Your task to perform on an android device: Go to internet settings Image 0: 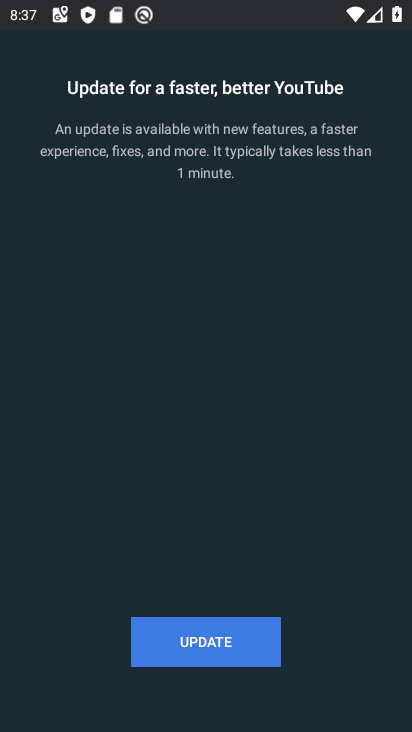
Step 0: press home button
Your task to perform on an android device: Go to internet settings Image 1: 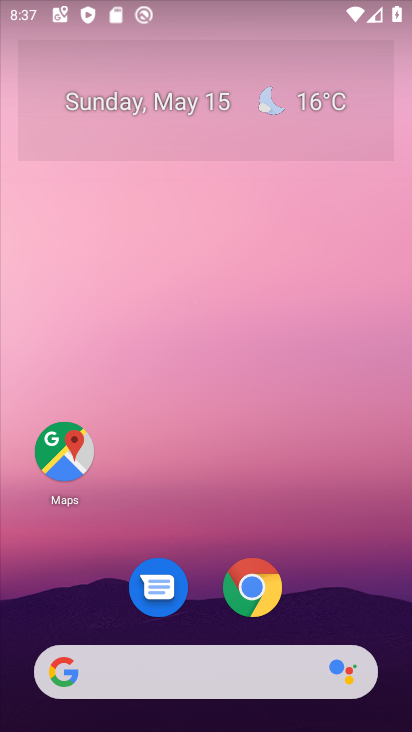
Step 1: drag from (328, 523) to (352, 47)
Your task to perform on an android device: Go to internet settings Image 2: 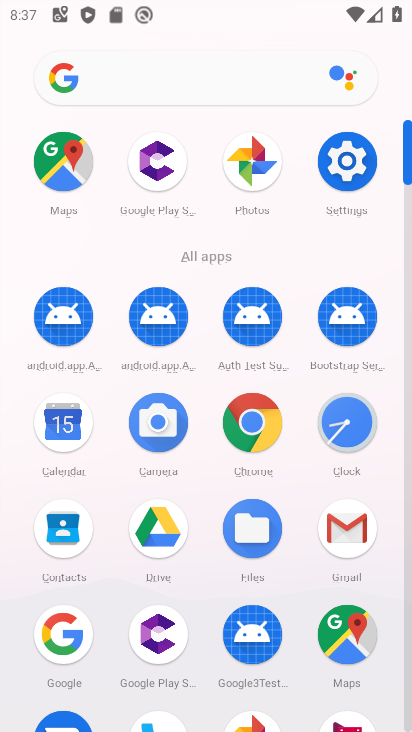
Step 2: click (357, 141)
Your task to perform on an android device: Go to internet settings Image 3: 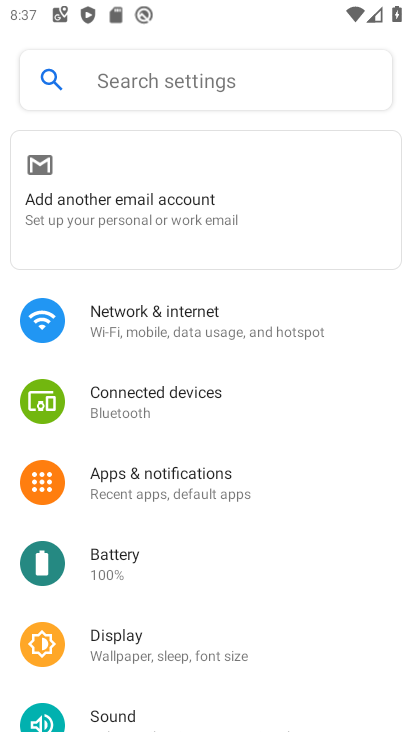
Step 3: click (182, 321)
Your task to perform on an android device: Go to internet settings Image 4: 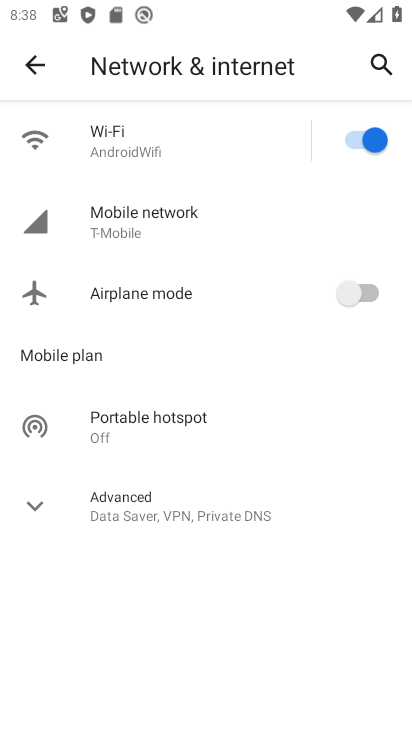
Step 4: task complete